Your task to perform on an android device: read, delete, or share a saved page in the chrome app Image 0: 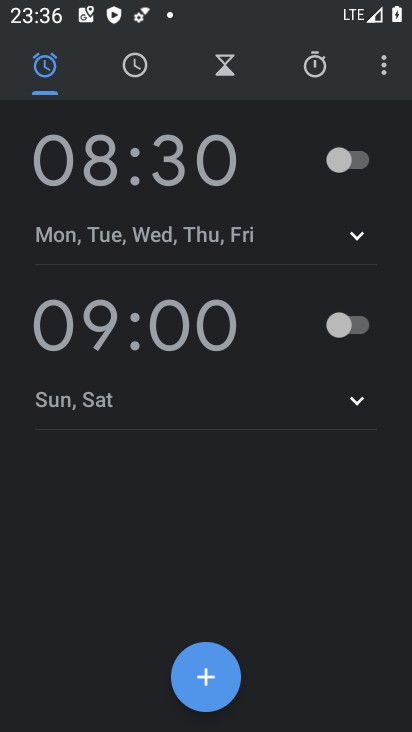
Step 0: press home button
Your task to perform on an android device: read, delete, or share a saved page in the chrome app Image 1: 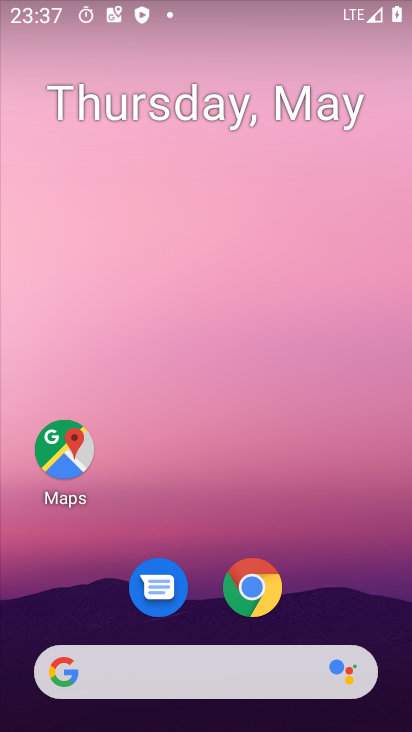
Step 1: click (263, 590)
Your task to perform on an android device: read, delete, or share a saved page in the chrome app Image 2: 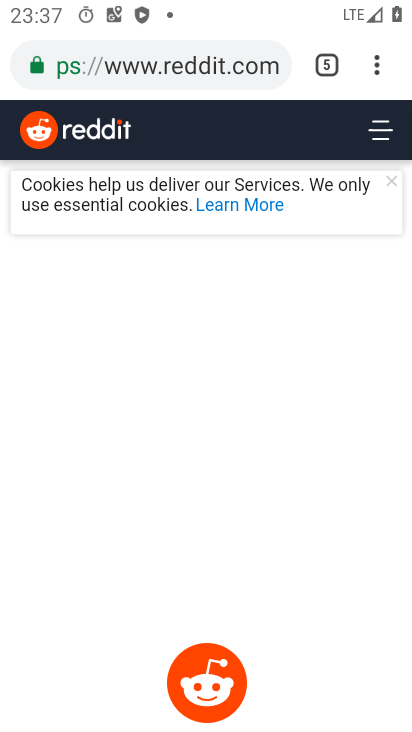
Step 2: click (372, 63)
Your task to perform on an android device: read, delete, or share a saved page in the chrome app Image 3: 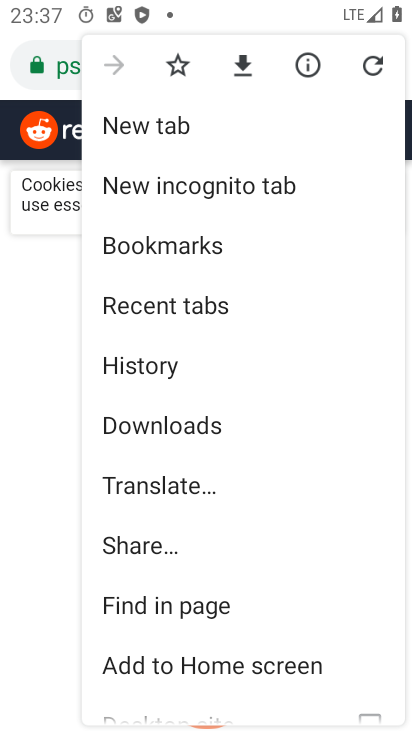
Step 3: click (196, 418)
Your task to perform on an android device: read, delete, or share a saved page in the chrome app Image 4: 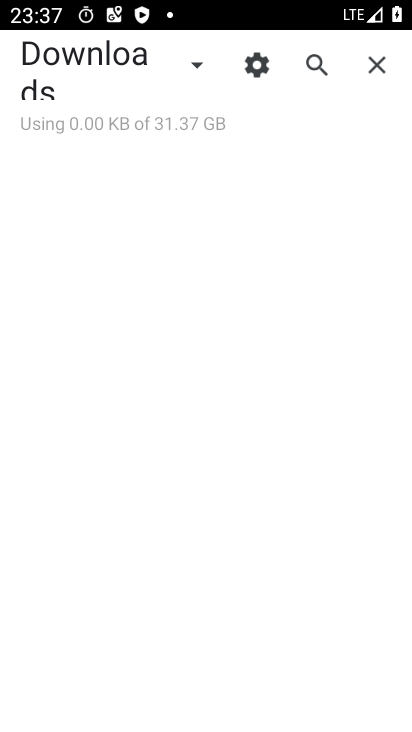
Step 4: click (198, 72)
Your task to perform on an android device: read, delete, or share a saved page in the chrome app Image 5: 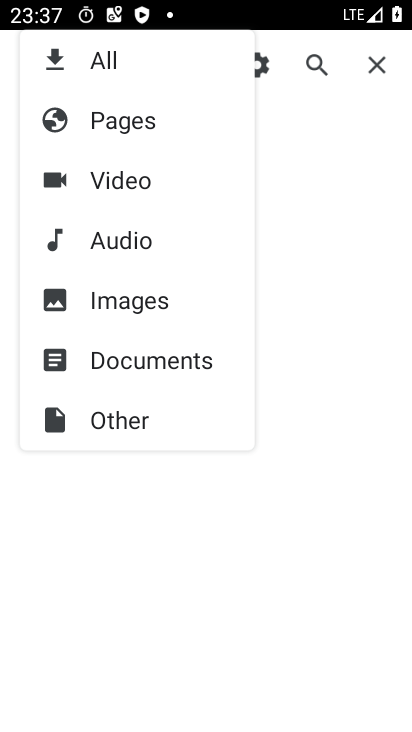
Step 5: click (135, 129)
Your task to perform on an android device: read, delete, or share a saved page in the chrome app Image 6: 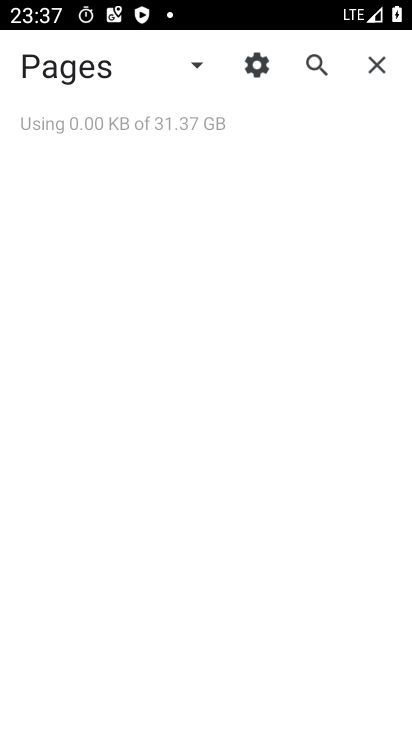
Step 6: task complete